Your task to perform on an android device: Go to Wikipedia Image 0: 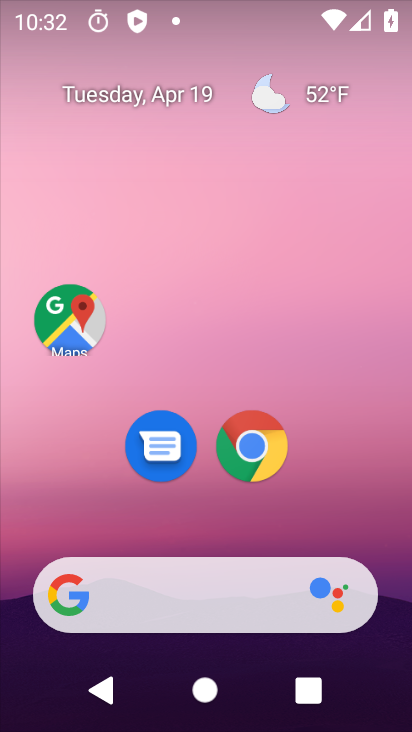
Step 0: click (239, 430)
Your task to perform on an android device: Go to Wikipedia Image 1: 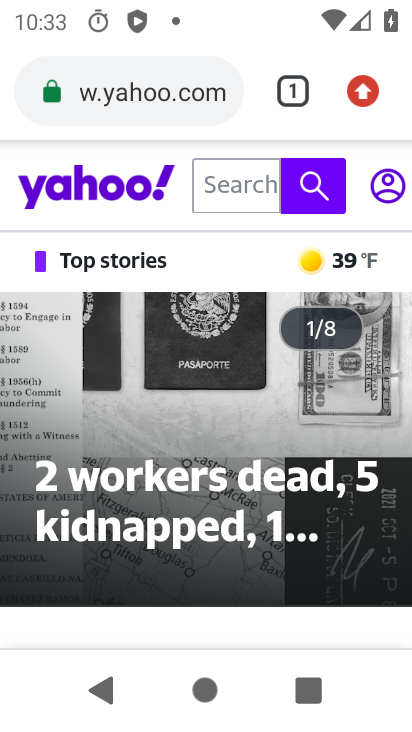
Step 1: click (216, 85)
Your task to perform on an android device: Go to Wikipedia Image 2: 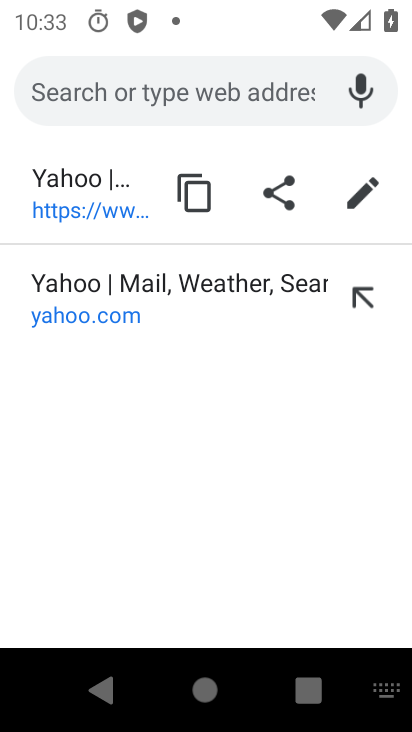
Step 2: type "Wikipedia"
Your task to perform on an android device: Go to Wikipedia Image 3: 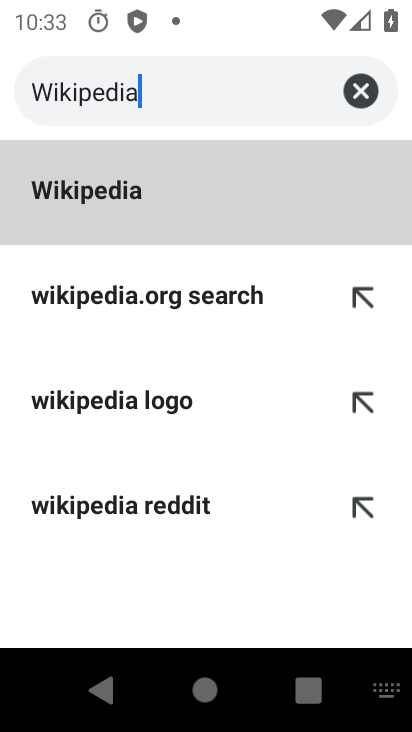
Step 3: click (71, 188)
Your task to perform on an android device: Go to Wikipedia Image 4: 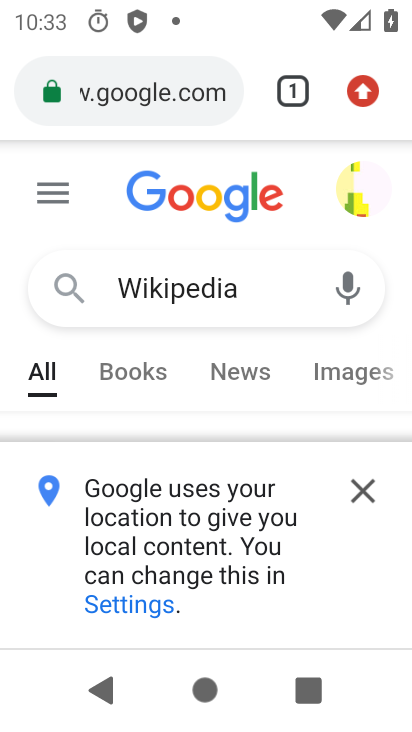
Step 4: click (363, 498)
Your task to perform on an android device: Go to Wikipedia Image 5: 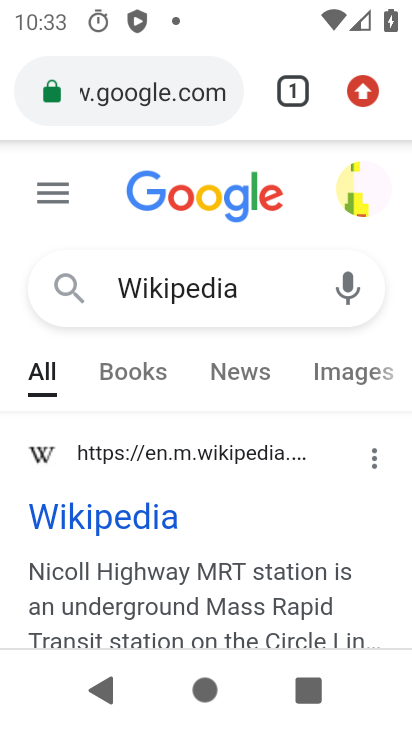
Step 5: task complete